Your task to perform on an android device: turn on priority inbox in the gmail app Image 0: 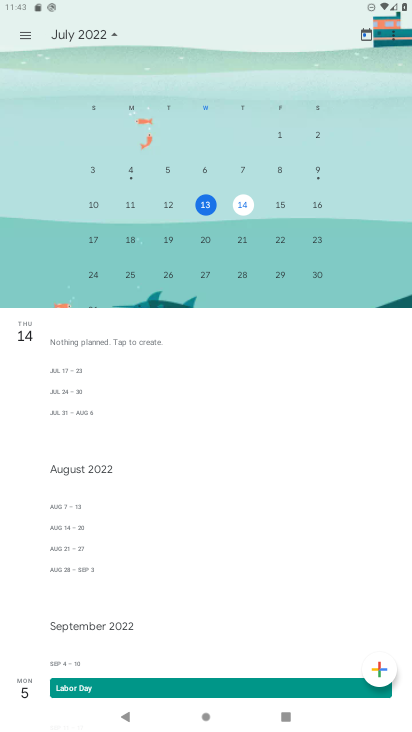
Step 0: press home button
Your task to perform on an android device: turn on priority inbox in the gmail app Image 1: 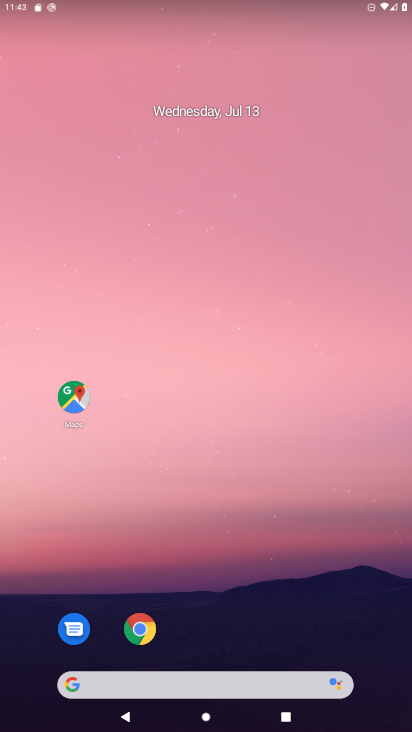
Step 1: drag from (15, 465) to (387, 486)
Your task to perform on an android device: turn on priority inbox in the gmail app Image 2: 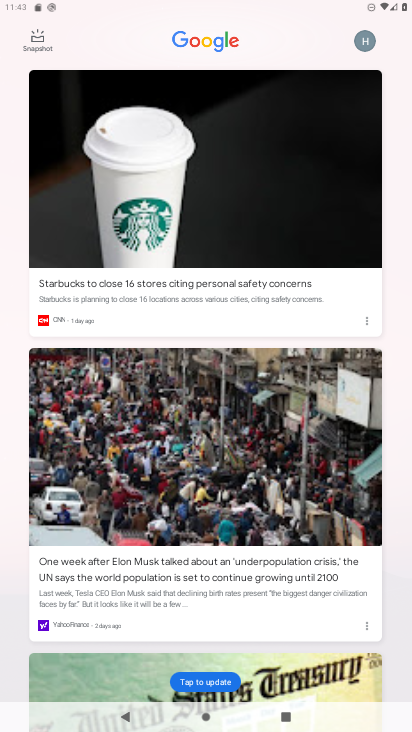
Step 2: drag from (403, 486) to (1, 442)
Your task to perform on an android device: turn on priority inbox in the gmail app Image 3: 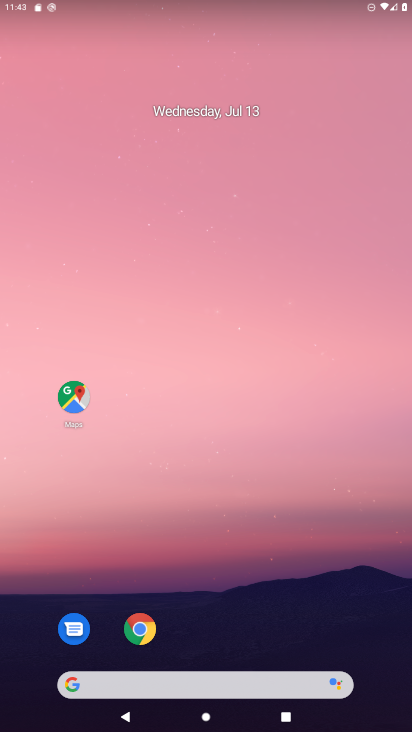
Step 3: drag from (394, 716) to (342, 173)
Your task to perform on an android device: turn on priority inbox in the gmail app Image 4: 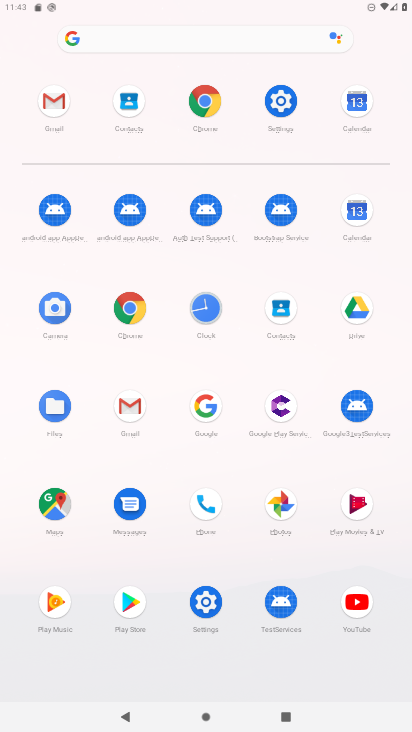
Step 4: click (137, 397)
Your task to perform on an android device: turn on priority inbox in the gmail app Image 5: 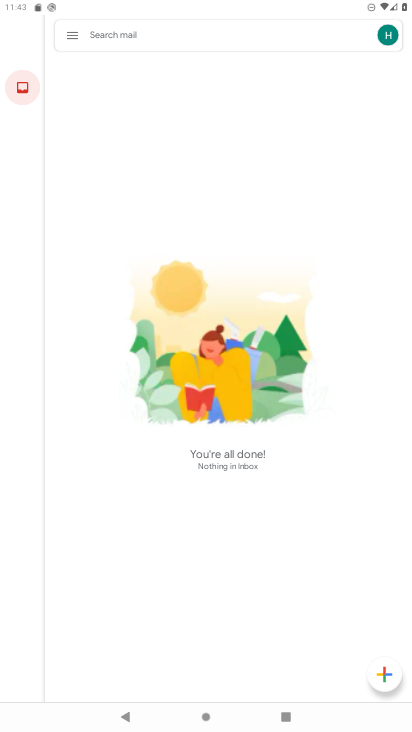
Step 5: click (71, 34)
Your task to perform on an android device: turn on priority inbox in the gmail app Image 6: 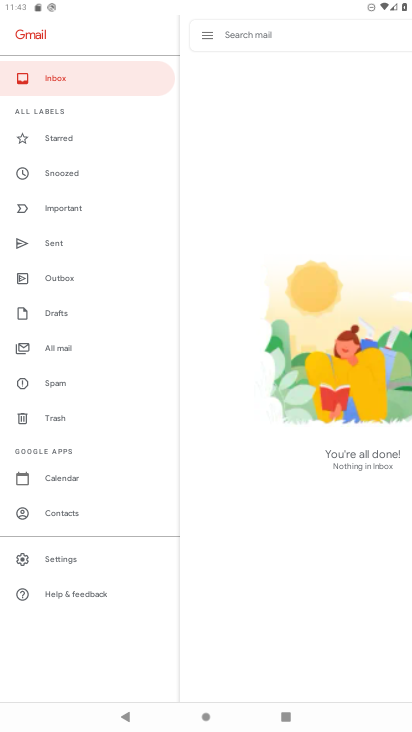
Step 6: click (49, 561)
Your task to perform on an android device: turn on priority inbox in the gmail app Image 7: 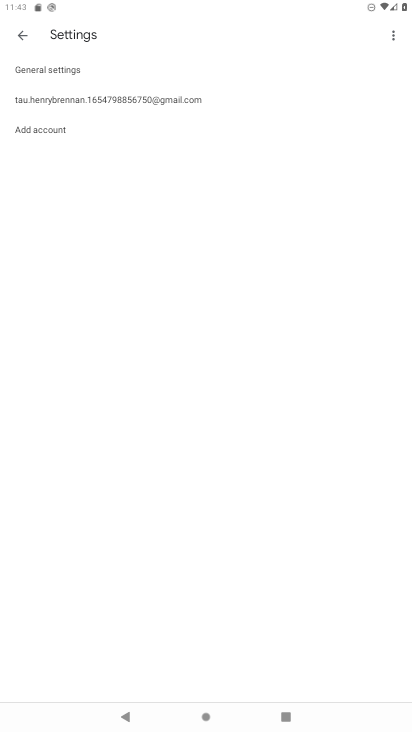
Step 7: click (74, 104)
Your task to perform on an android device: turn on priority inbox in the gmail app Image 8: 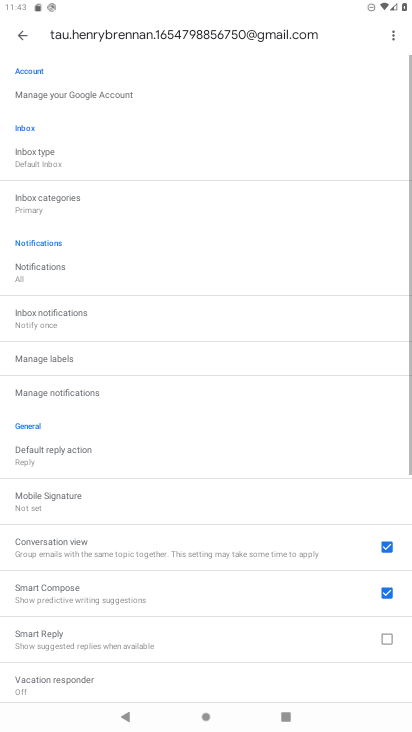
Step 8: click (45, 158)
Your task to perform on an android device: turn on priority inbox in the gmail app Image 9: 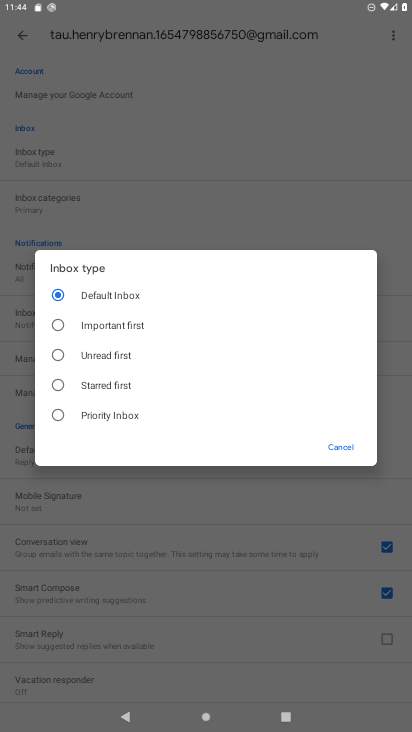
Step 9: click (66, 412)
Your task to perform on an android device: turn on priority inbox in the gmail app Image 10: 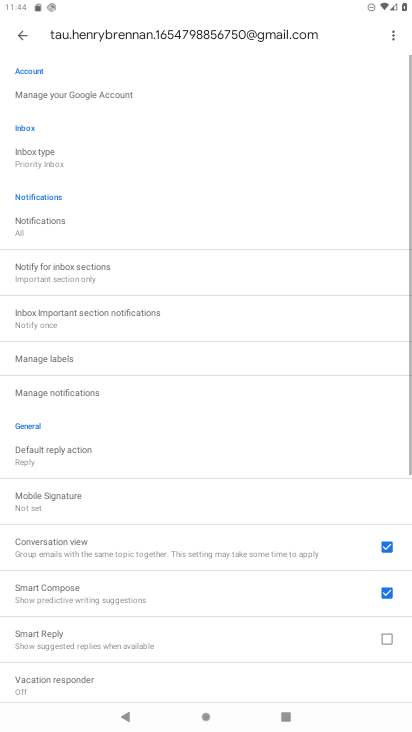
Step 10: task complete